Your task to perform on an android device: turn notification dots on Image 0: 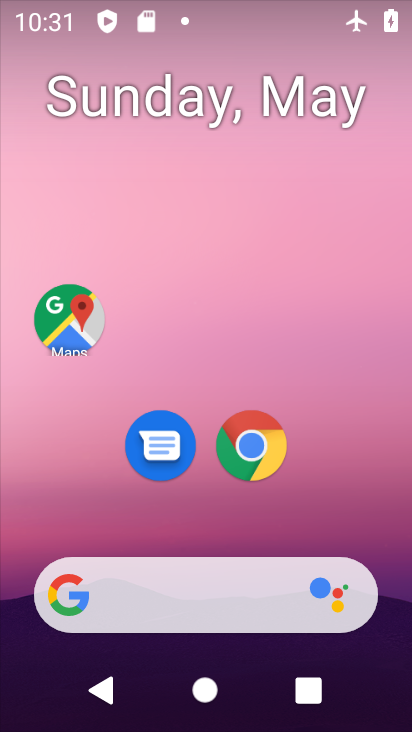
Step 0: drag from (243, 467) to (299, 226)
Your task to perform on an android device: turn notification dots on Image 1: 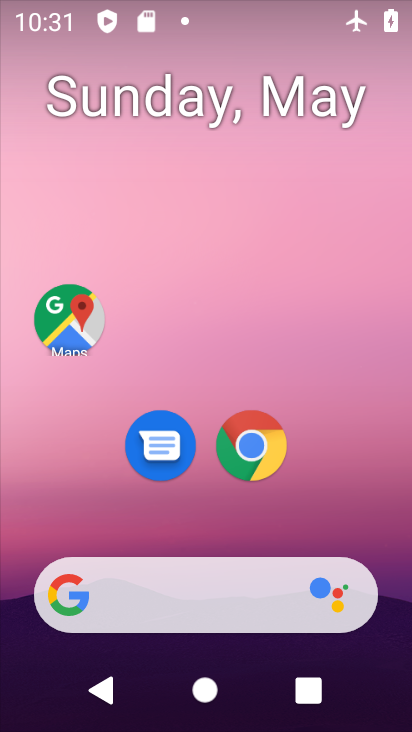
Step 1: drag from (159, 549) to (279, 35)
Your task to perform on an android device: turn notification dots on Image 2: 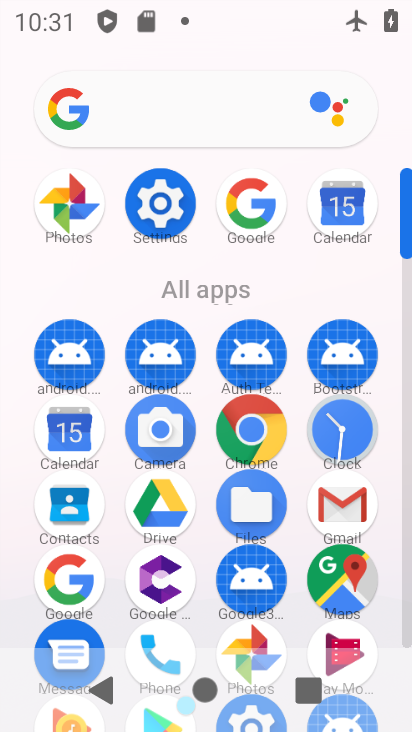
Step 2: click (155, 204)
Your task to perform on an android device: turn notification dots on Image 3: 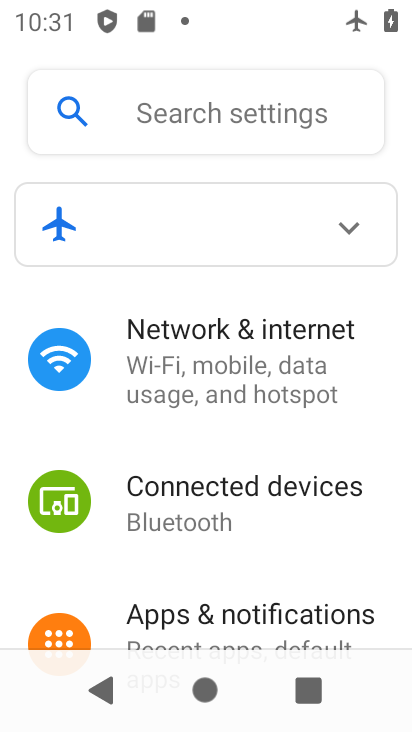
Step 3: drag from (199, 533) to (231, 328)
Your task to perform on an android device: turn notification dots on Image 4: 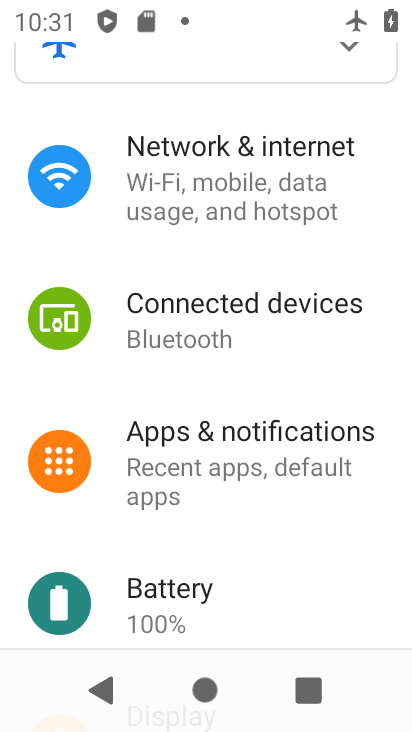
Step 4: click (226, 472)
Your task to perform on an android device: turn notification dots on Image 5: 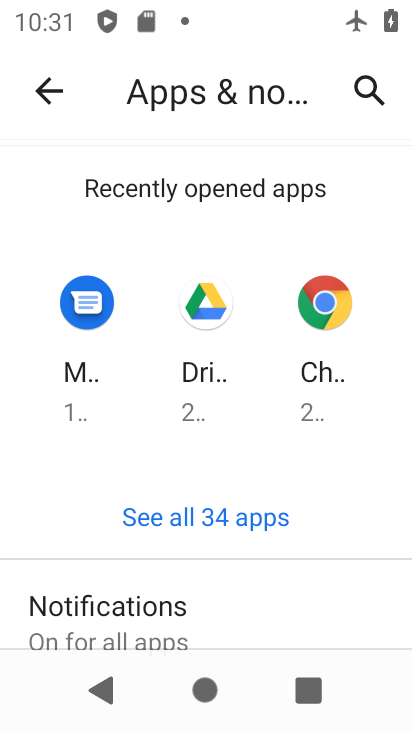
Step 5: click (128, 604)
Your task to perform on an android device: turn notification dots on Image 6: 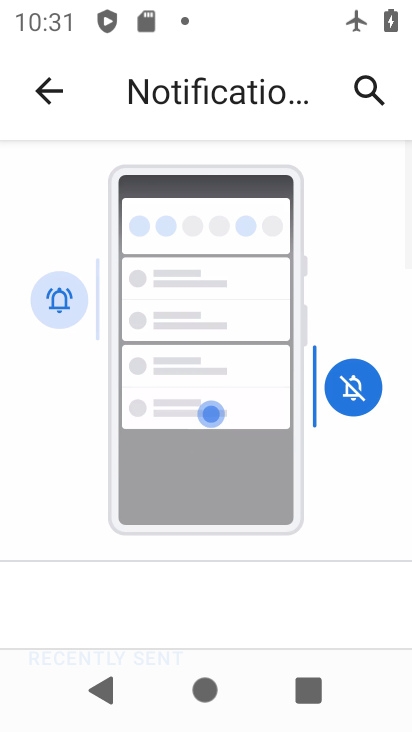
Step 6: drag from (142, 560) to (246, 155)
Your task to perform on an android device: turn notification dots on Image 7: 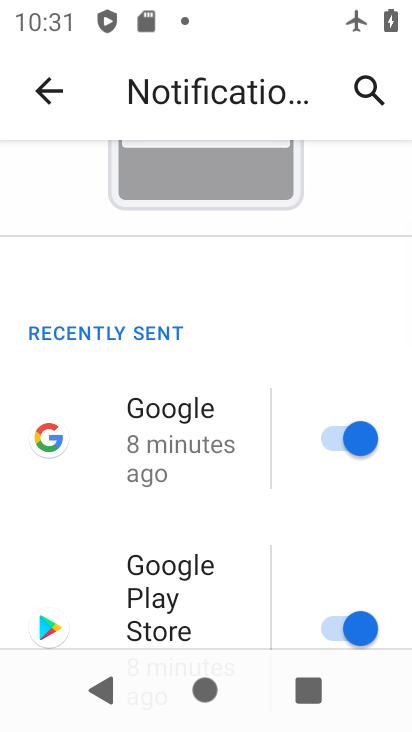
Step 7: drag from (177, 544) to (207, 329)
Your task to perform on an android device: turn notification dots on Image 8: 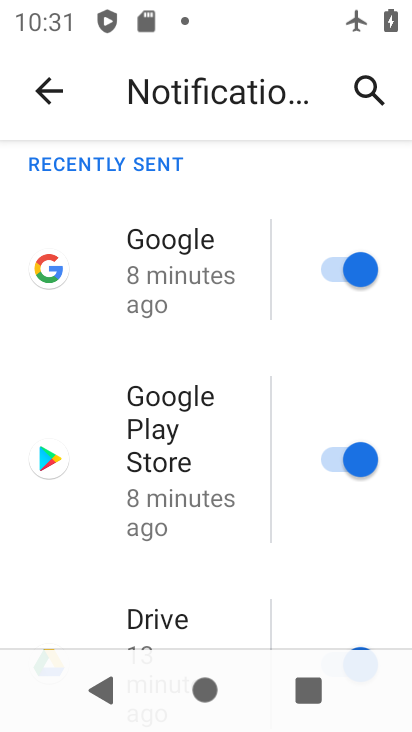
Step 8: drag from (121, 568) to (189, 219)
Your task to perform on an android device: turn notification dots on Image 9: 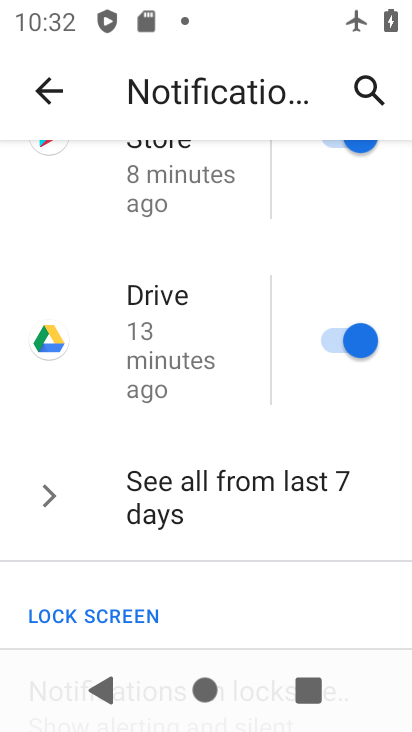
Step 9: drag from (178, 568) to (222, 205)
Your task to perform on an android device: turn notification dots on Image 10: 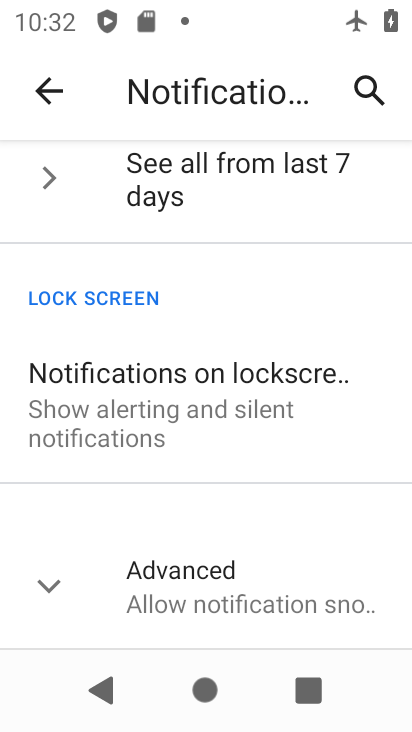
Step 10: click (130, 409)
Your task to perform on an android device: turn notification dots on Image 11: 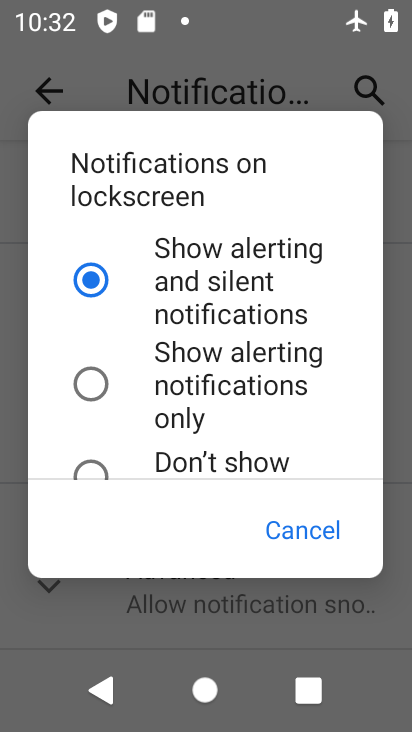
Step 11: click (77, 589)
Your task to perform on an android device: turn notification dots on Image 12: 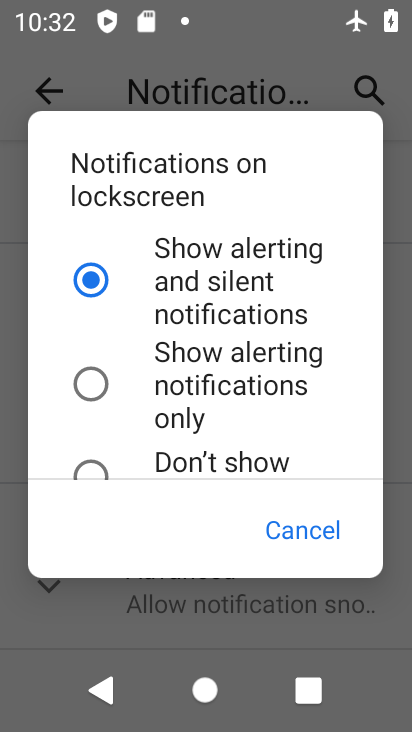
Step 12: click (2, 521)
Your task to perform on an android device: turn notification dots on Image 13: 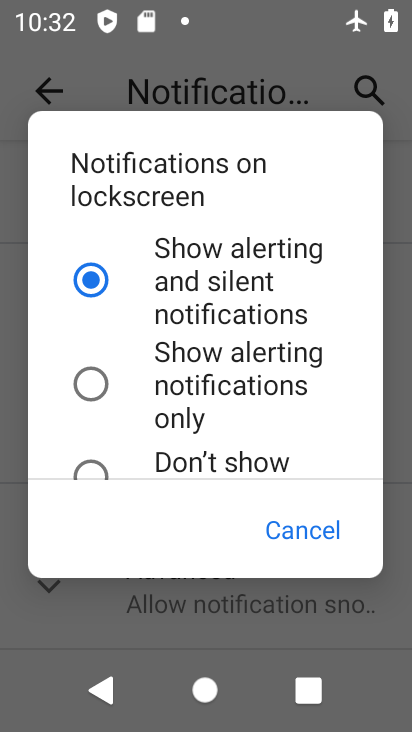
Step 13: click (292, 528)
Your task to perform on an android device: turn notification dots on Image 14: 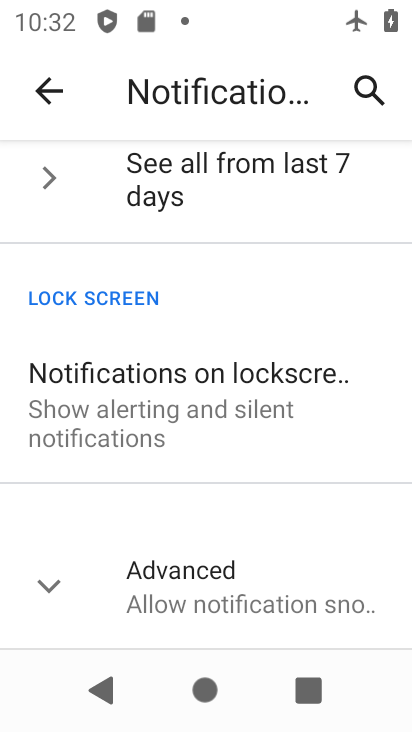
Step 14: click (42, 590)
Your task to perform on an android device: turn notification dots on Image 15: 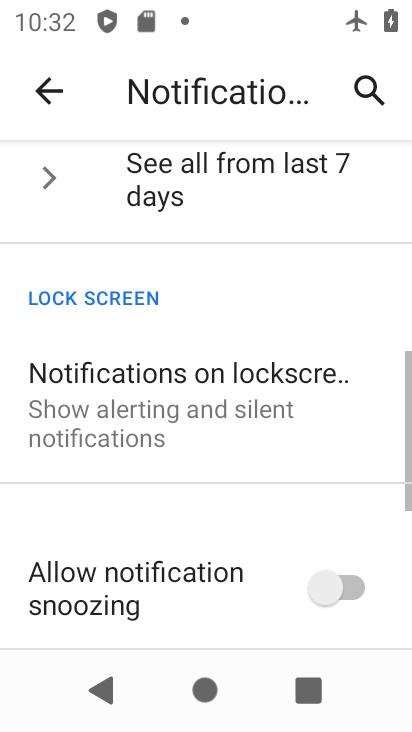
Step 15: task complete